Your task to perform on an android device: Check my gmail Image 0: 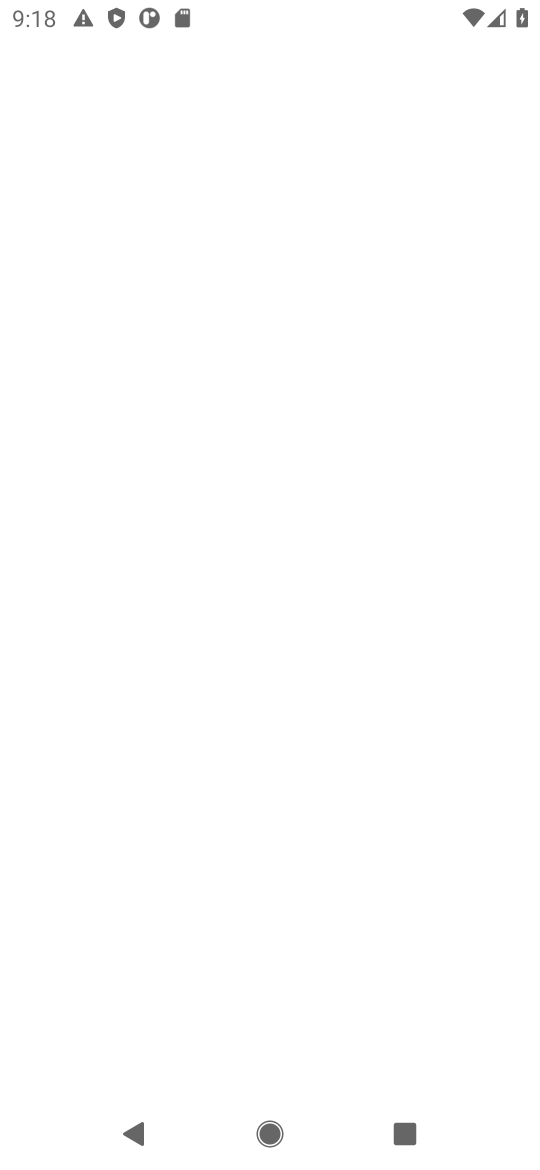
Step 0: press home button
Your task to perform on an android device: Check my gmail Image 1: 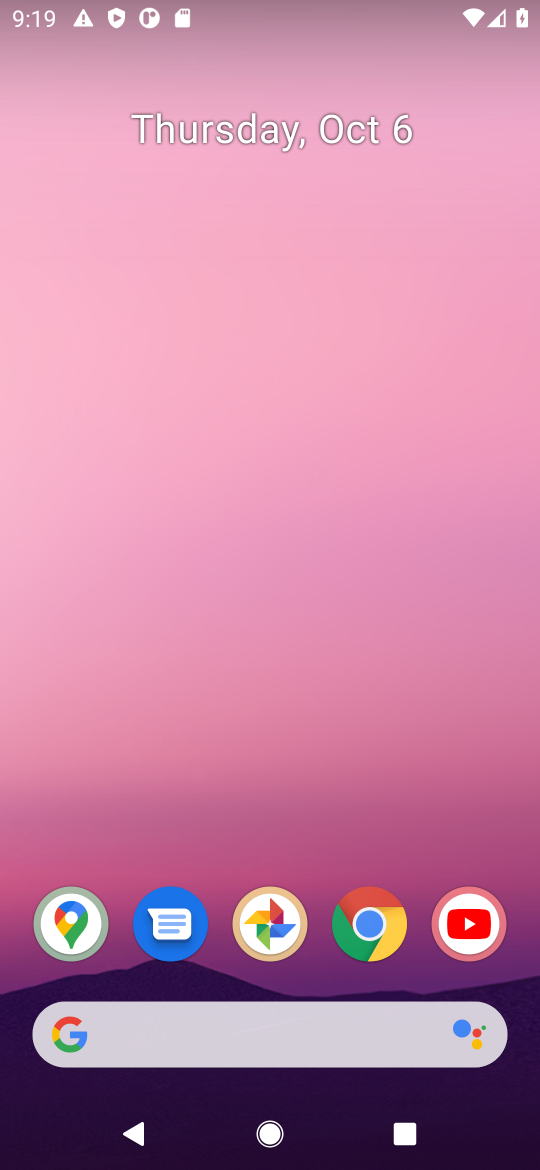
Step 1: drag from (306, 1038) to (492, 117)
Your task to perform on an android device: Check my gmail Image 2: 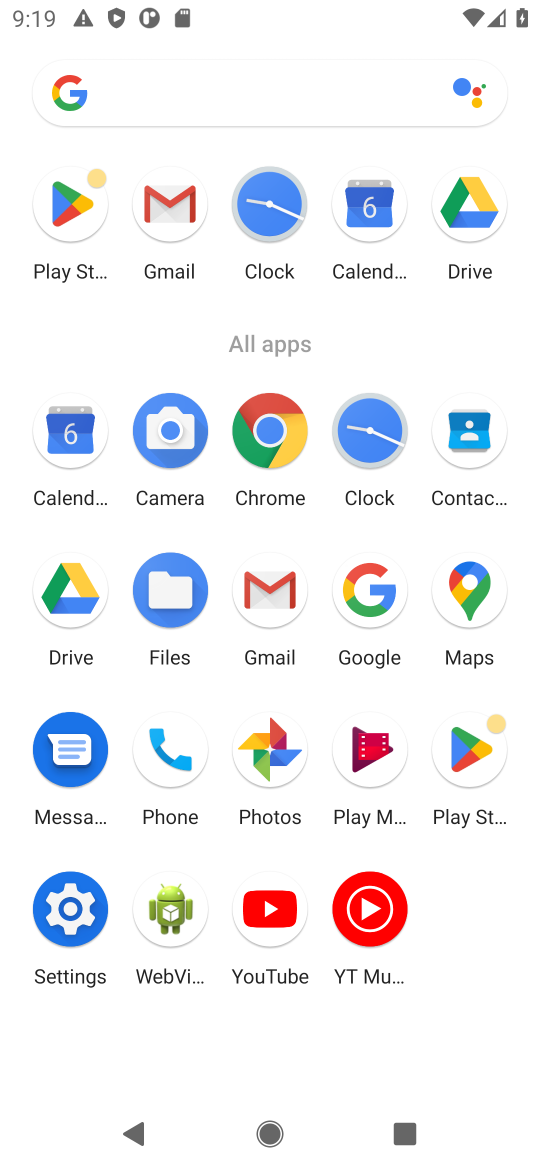
Step 2: click (180, 197)
Your task to perform on an android device: Check my gmail Image 3: 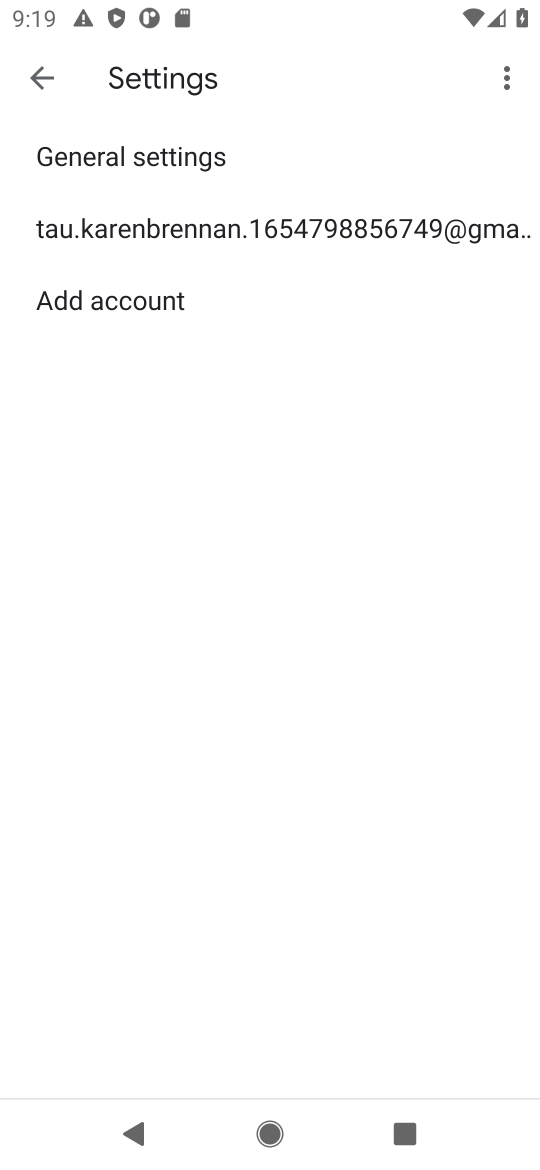
Step 3: click (31, 65)
Your task to perform on an android device: Check my gmail Image 4: 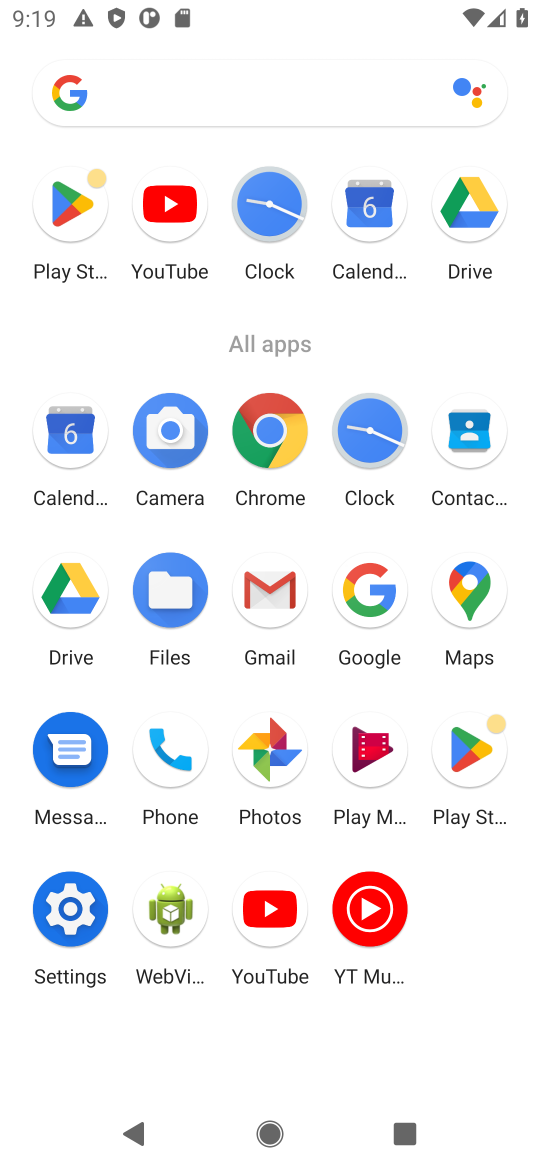
Step 4: click (260, 573)
Your task to perform on an android device: Check my gmail Image 5: 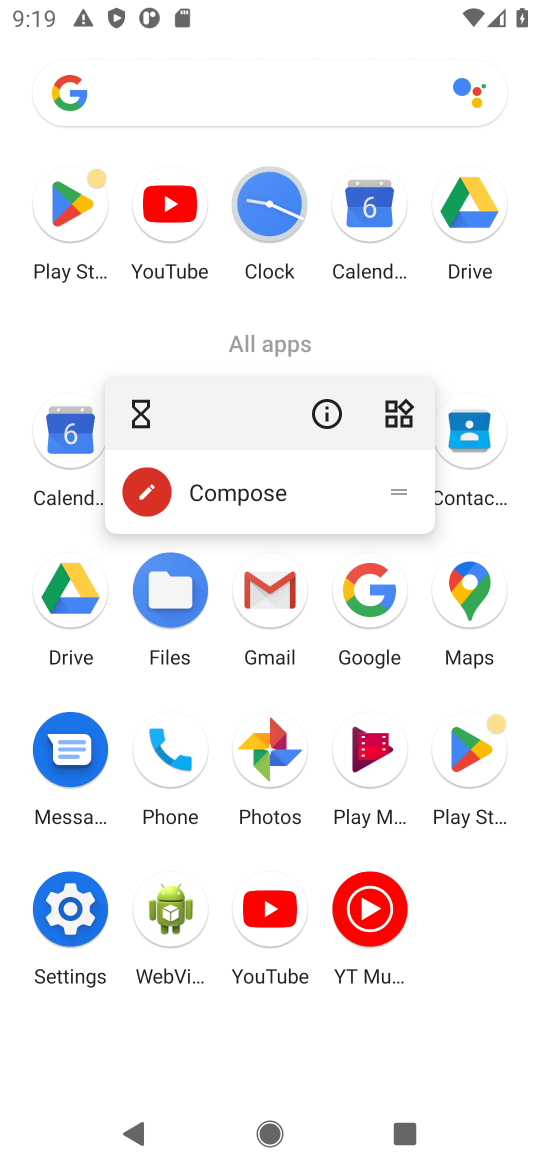
Step 5: click (255, 595)
Your task to perform on an android device: Check my gmail Image 6: 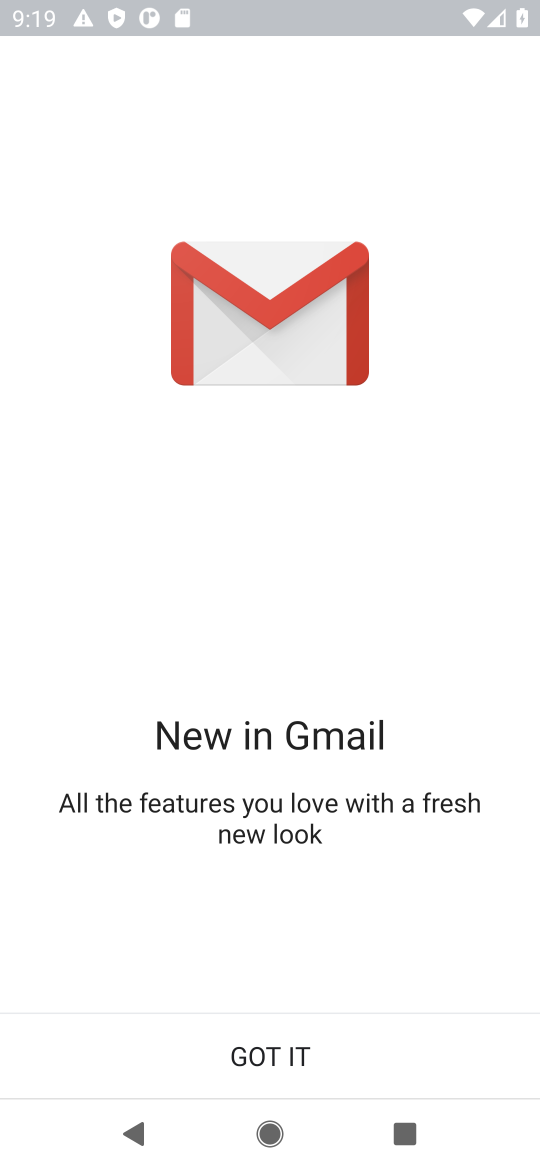
Step 6: click (300, 1071)
Your task to perform on an android device: Check my gmail Image 7: 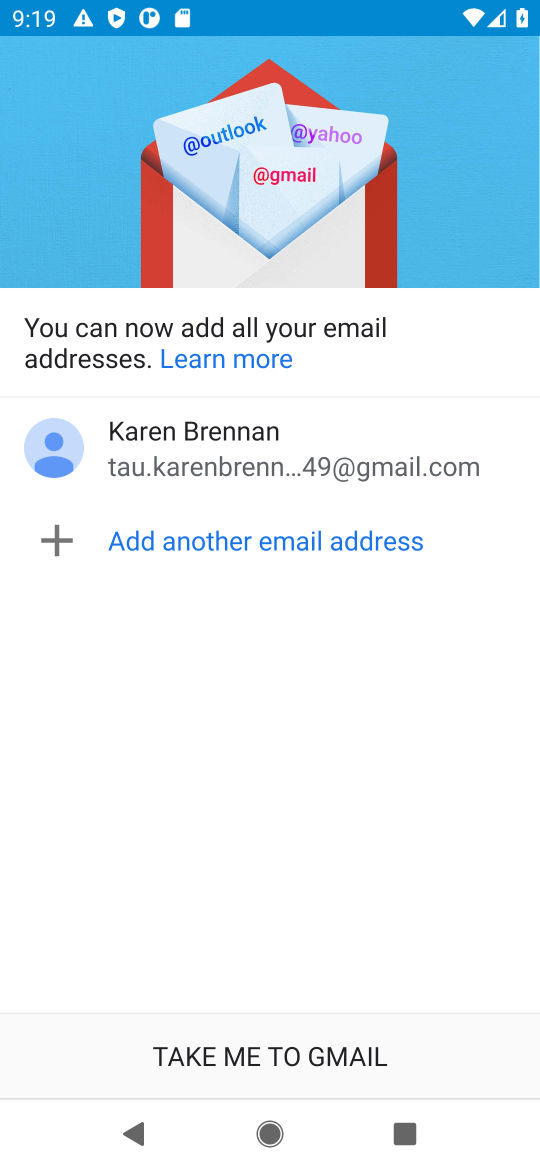
Step 7: click (303, 1055)
Your task to perform on an android device: Check my gmail Image 8: 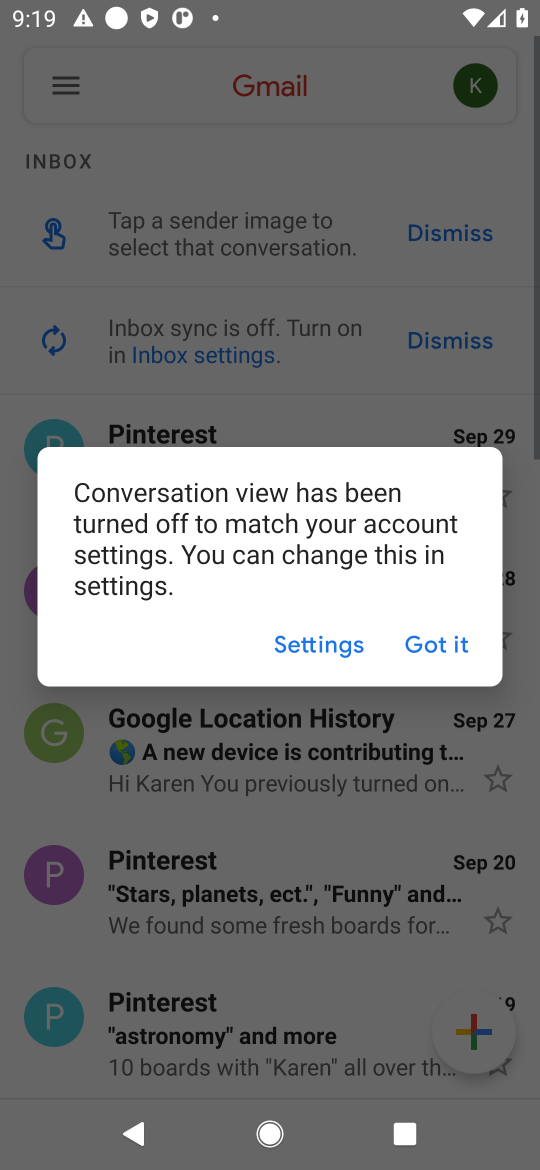
Step 8: click (428, 640)
Your task to perform on an android device: Check my gmail Image 9: 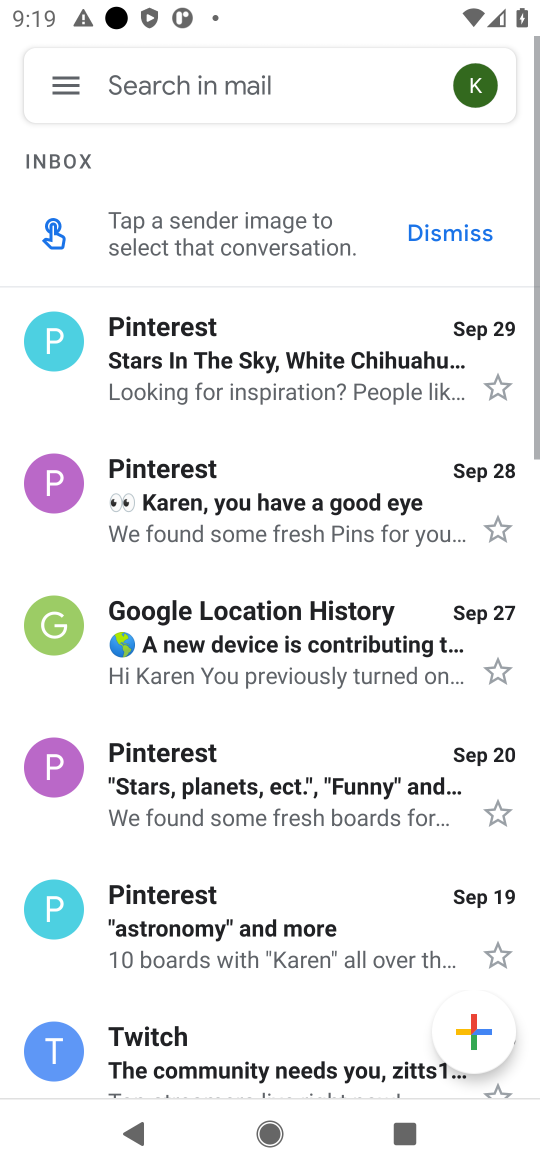
Step 9: task complete